Your task to perform on an android device: Open ESPN.com Image 0: 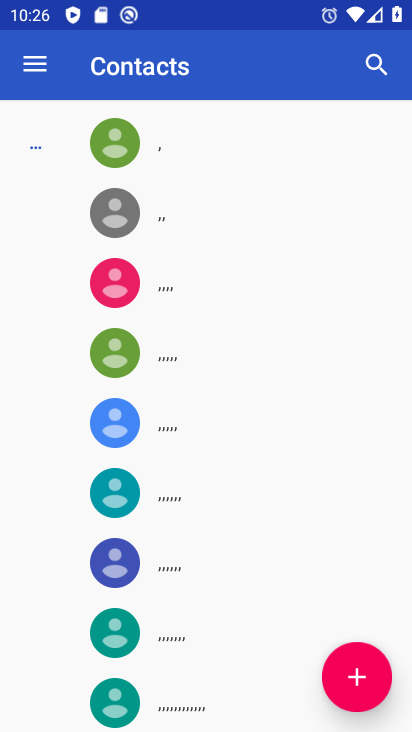
Step 0: press home button
Your task to perform on an android device: Open ESPN.com Image 1: 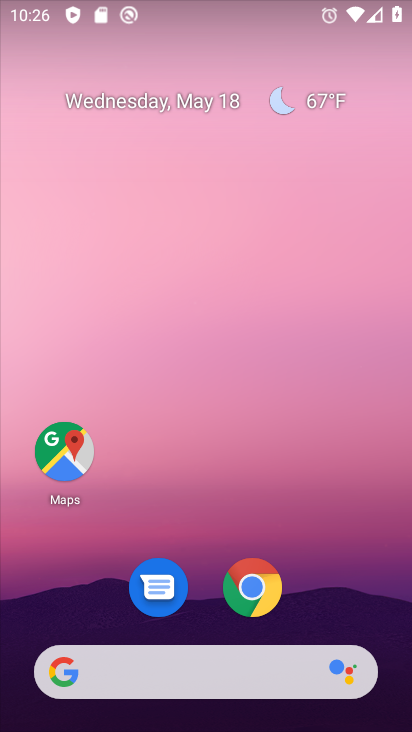
Step 1: click (251, 594)
Your task to perform on an android device: Open ESPN.com Image 2: 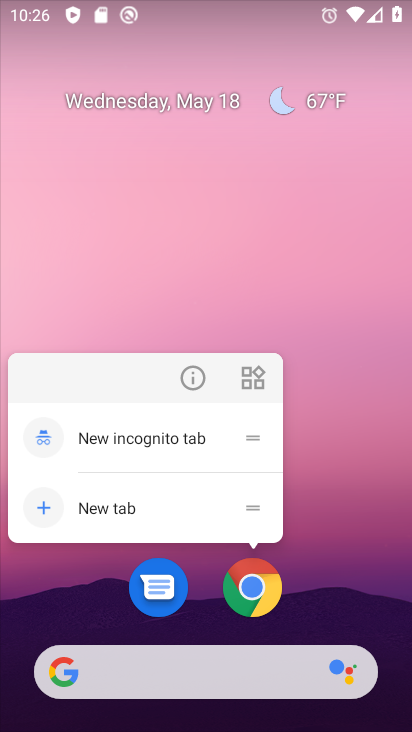
Step 2: click (256, 574)
Your task to perform on an android device: Open ESPN.com Image 3: 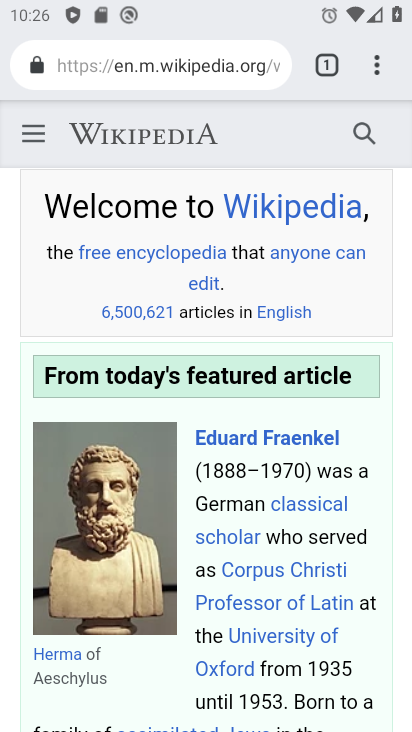
Step 3: click (247, 67)
Your task to perform on an android device: Open ESPN.com Image 4: 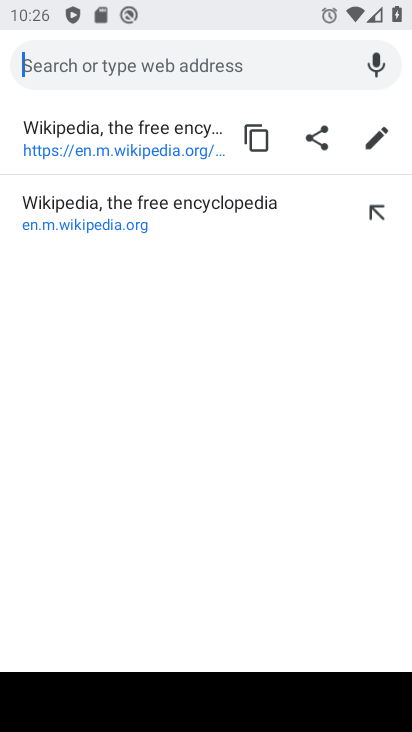
Step 4: click (254, 45)
Your task to perform on an android device: Open ESPN.com Image 5: 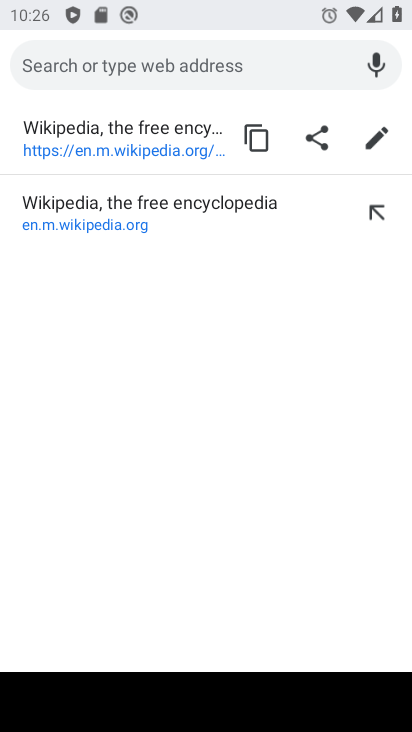
Step 5: press back button
Your task to perform on an android device: Open ESPN.com Image 6: 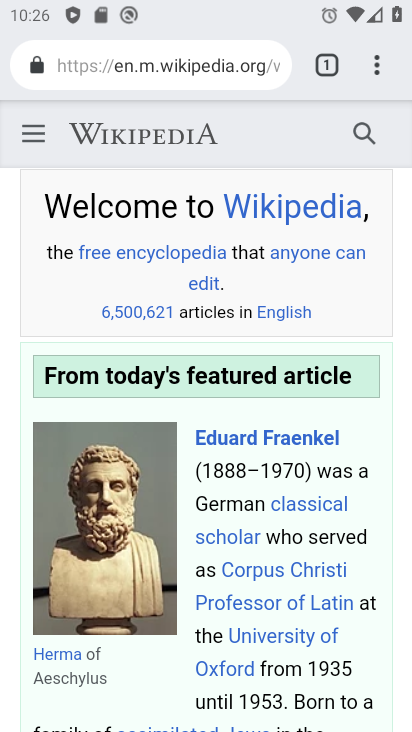
Step 6: click (316, 63)
Your task to perform on an android device: Open ESPN.com Image 7: 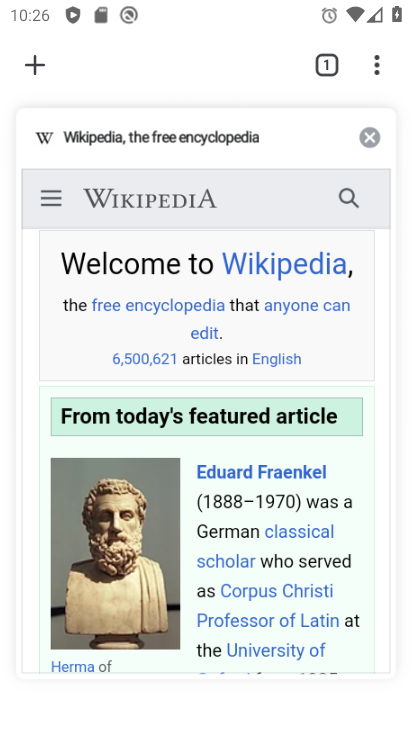
Step 7: click (25, 56)
Your task to perform on an android device: Open ESPN.com Image 8: 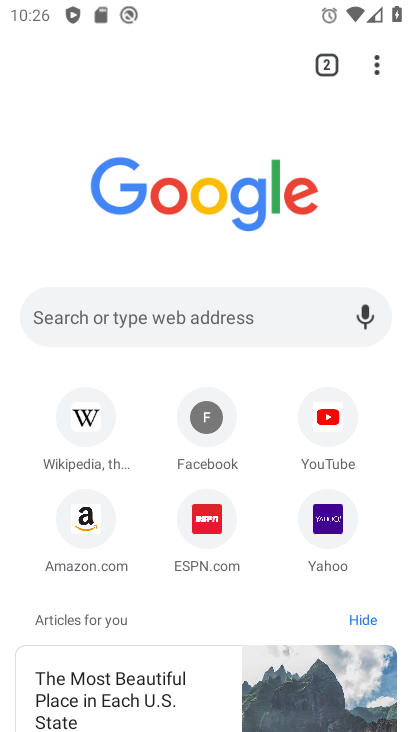
Step 8: click (212, 524)
Your task to perform on an android device: Open ESPN.com Image 9: 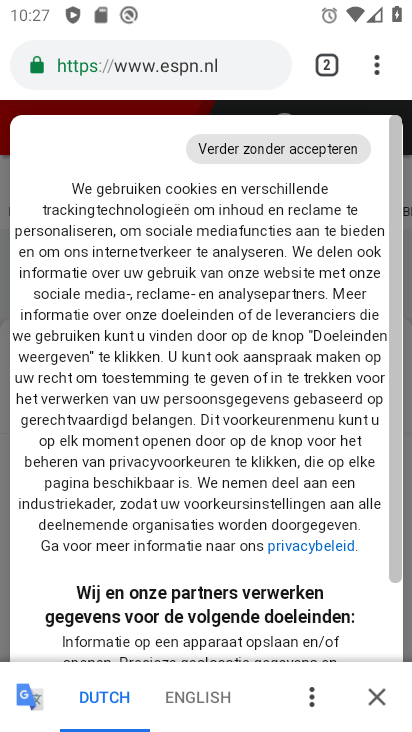
Step 9: task complete